Your task to perform on an android device: change the clock display to digital Image 0: 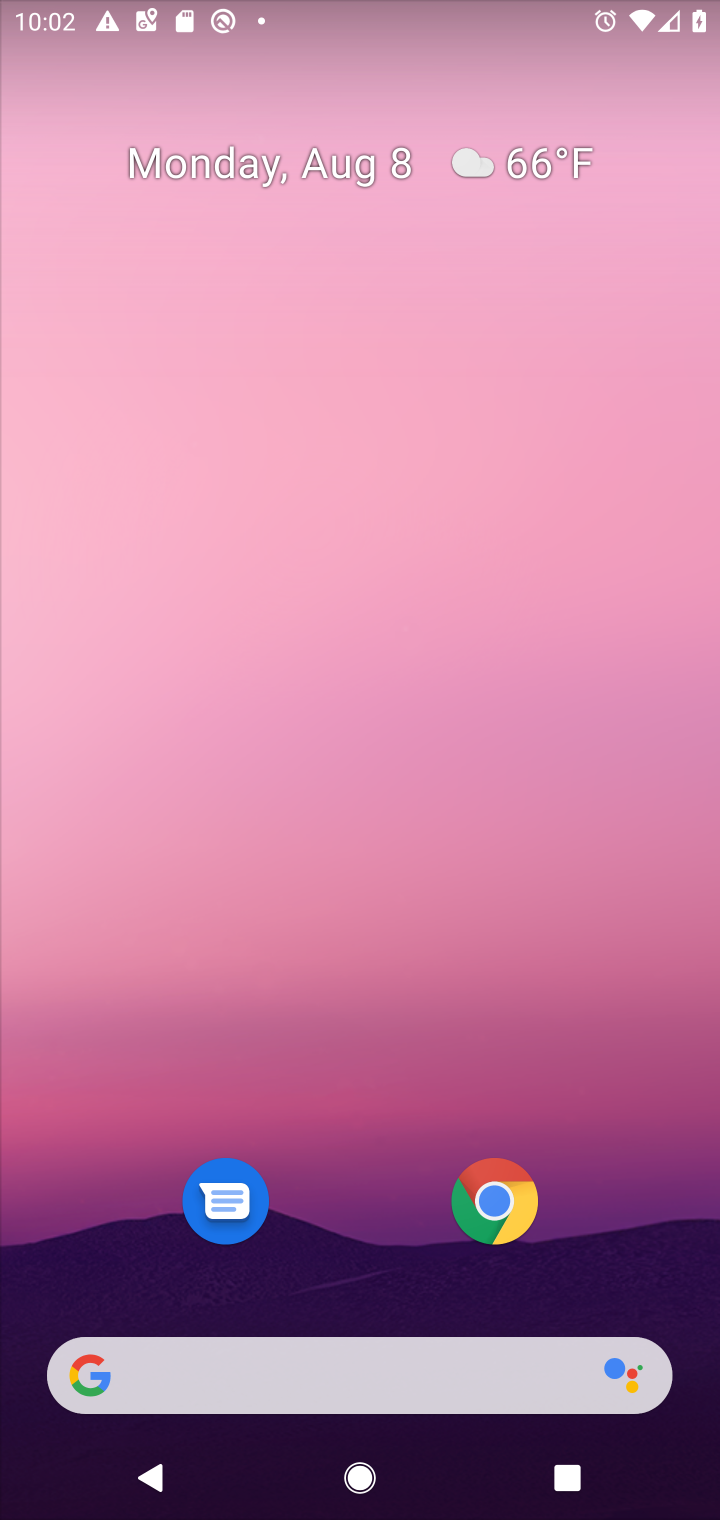
Step 0: drag from (356, 1278) to (440, 202)
Your task to perform on an android device: change the clock display to digital Image 1: 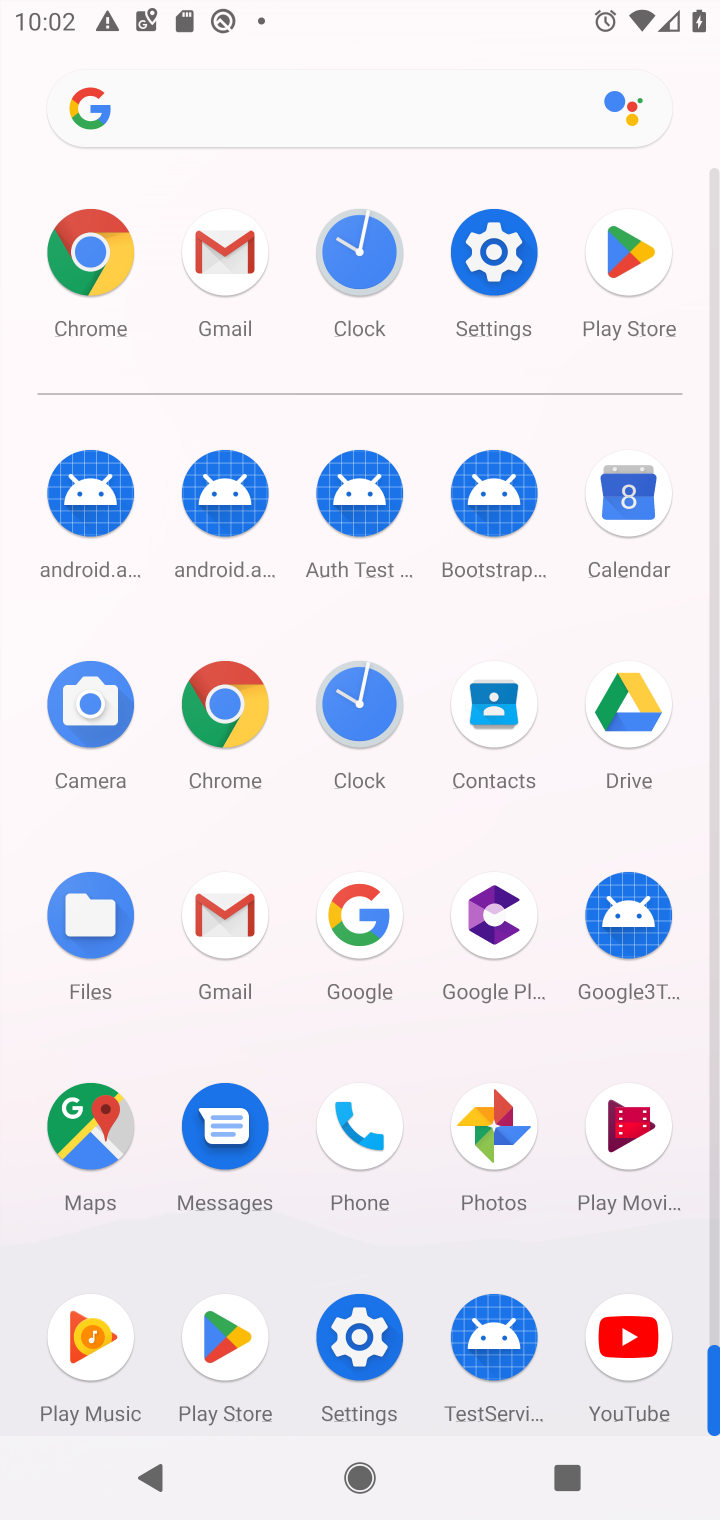
Step 1: click (359, 712)
Your task to perform on an android device: change the clock display to digital Image 2: 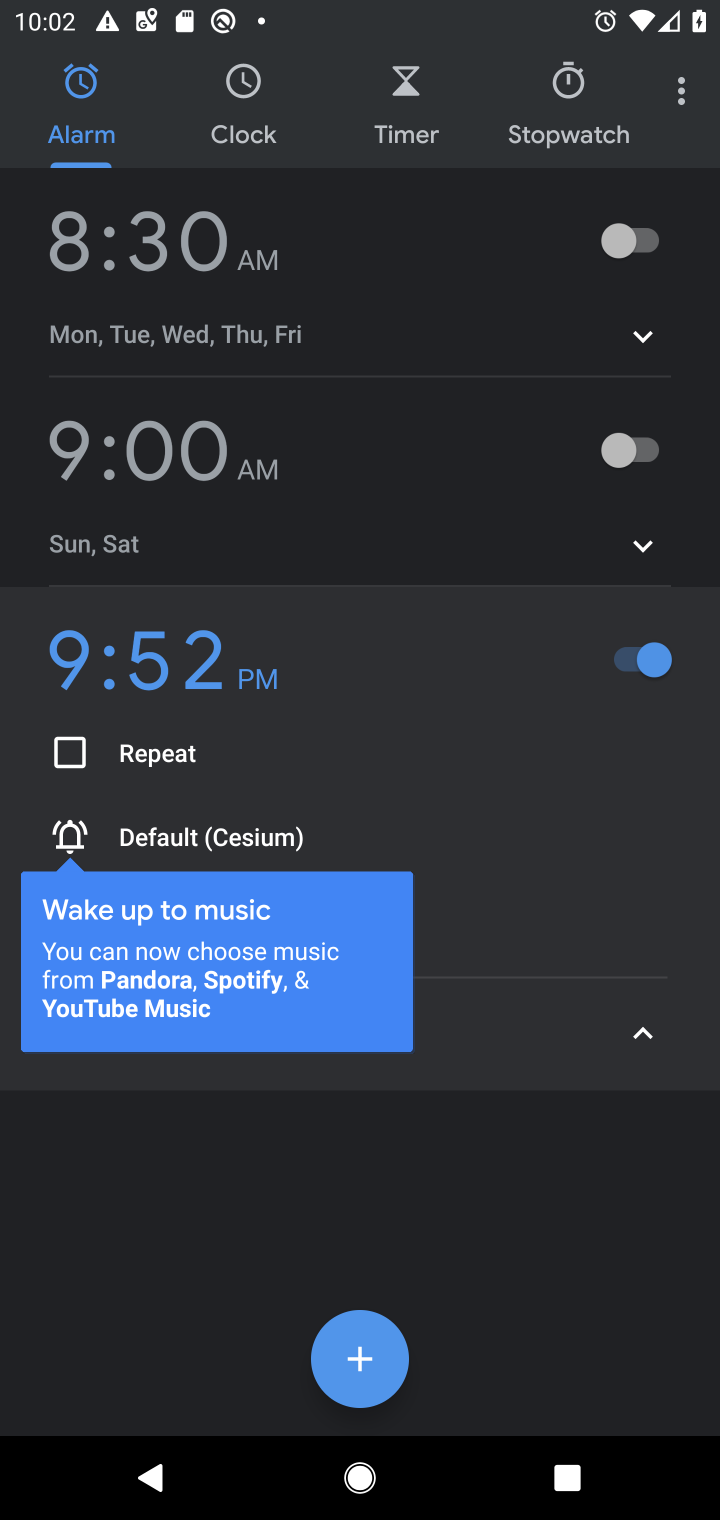
Step 2: click (678, 100)
Your task to perform on an android device: change the clock display to digital Image 3: 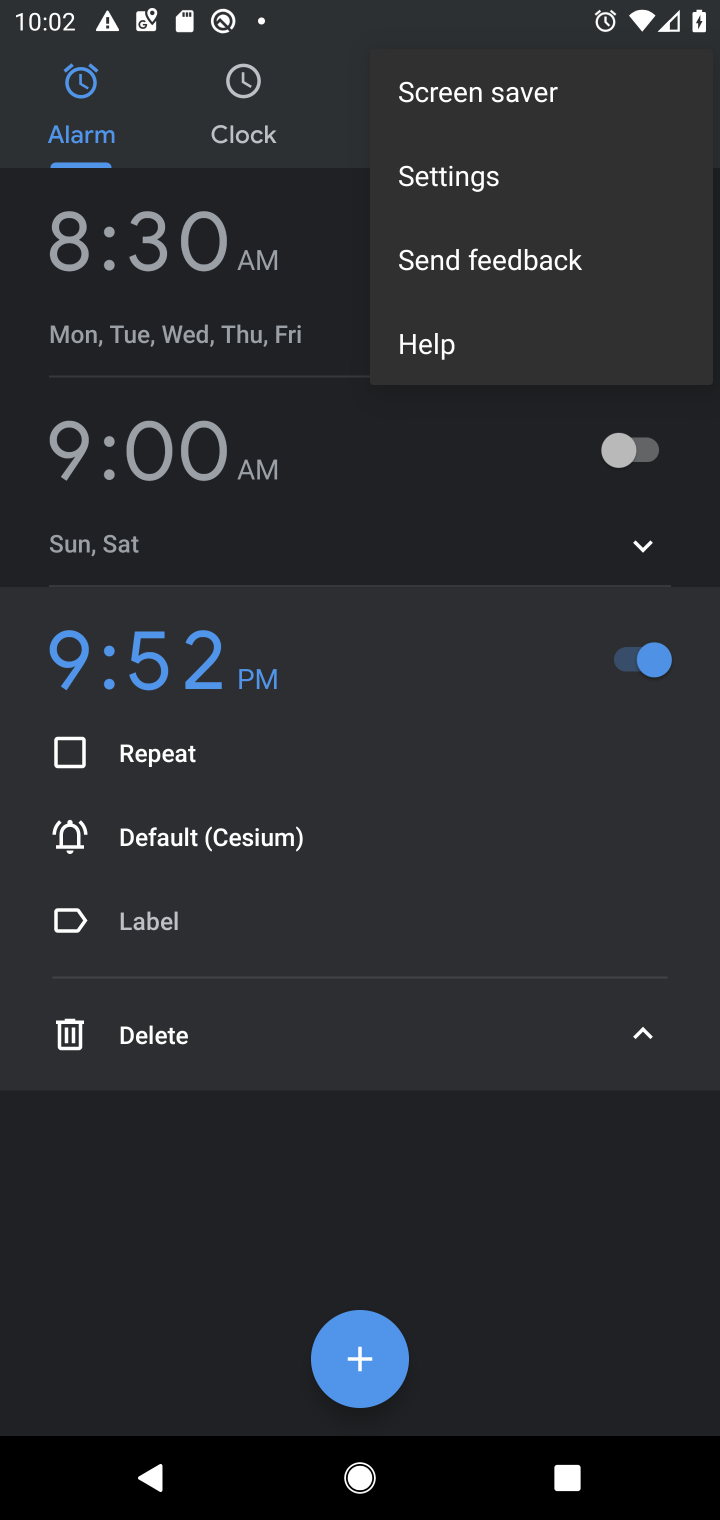
Step 3: click (482, 179)
Your task to perform on an android device: change the clock display to digital Image 4: 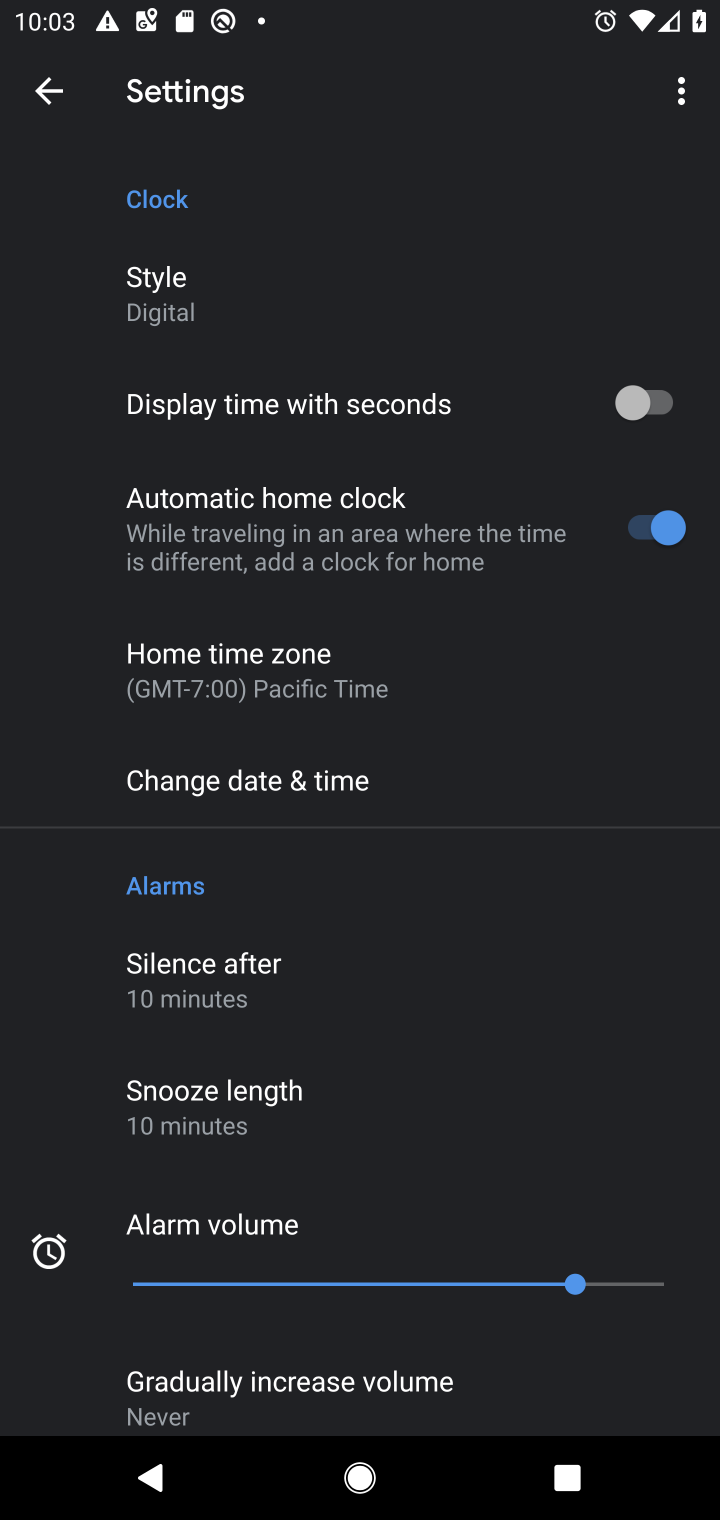
Step 4: task complete